Your task to perform on an android device: find photos in the google photos app Image 0: 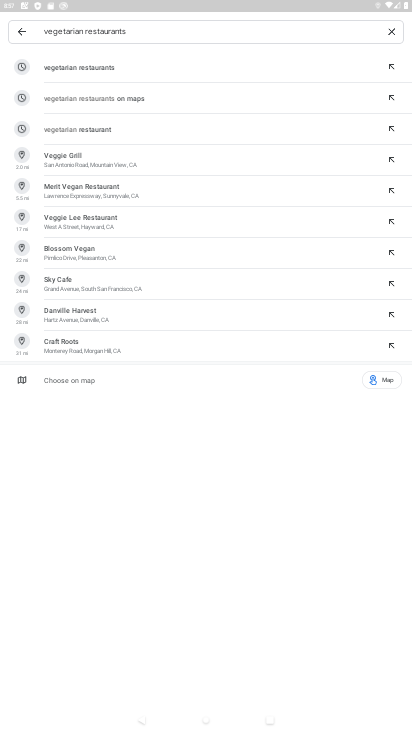
Step 0: task complete